Your task to perform on an android device: open device folders in google photos Image 0: 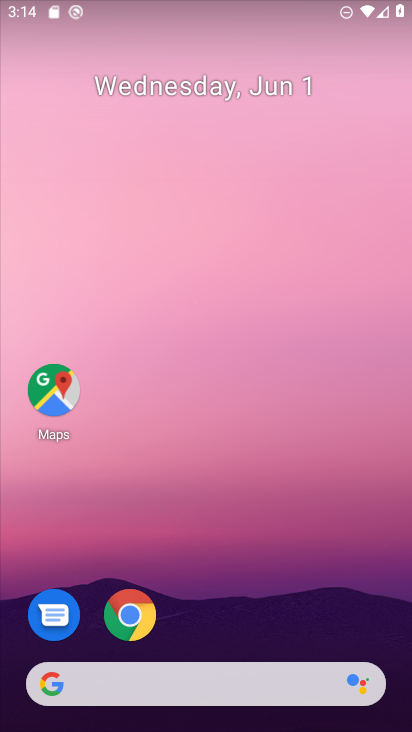
Step 0: press home button
Your task to perform on an android device: open device folders in google photos Image 1: 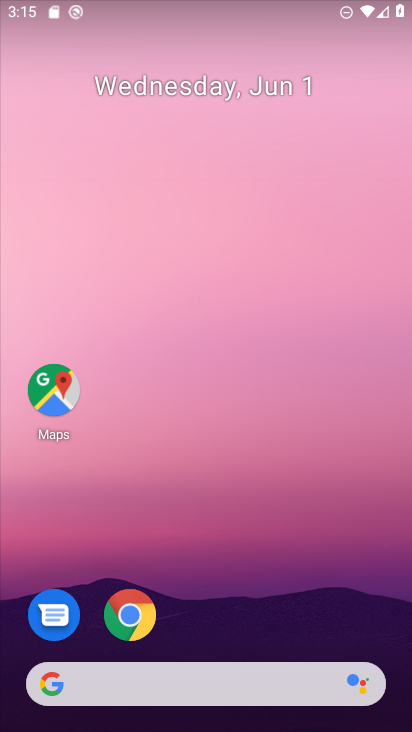
Step 1: drag from (211, 655) to (211, 128)
Your task to perform on an android device: open device folders in google photos Image 2: 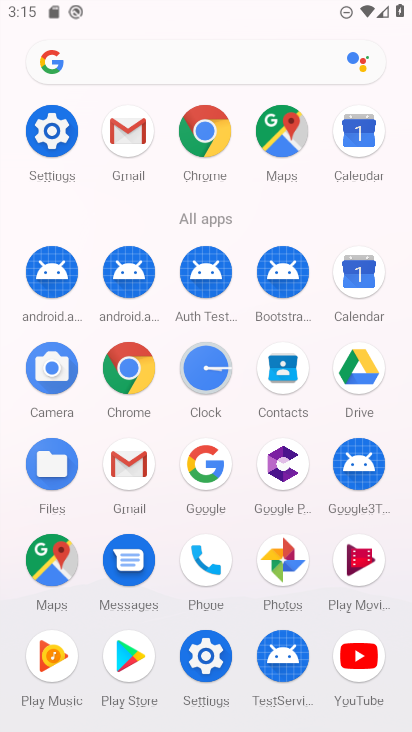
Step 2: click (281, 554)
Your task to perform on an android device: open device folders in google photos Image 3: 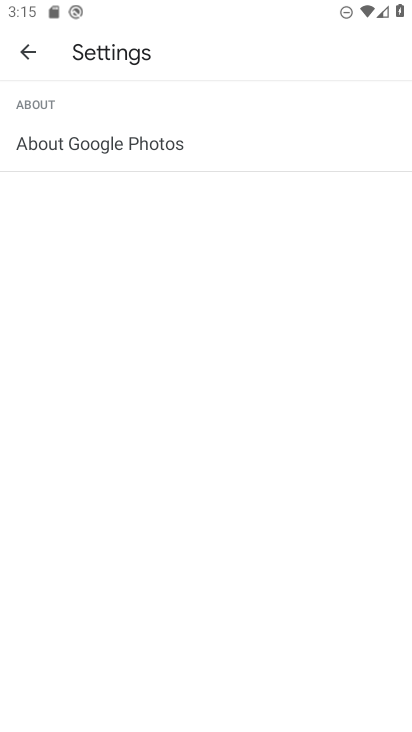
Step 3: click (27, 54)
Your task to perform on an android device: open device folders in google photos Image 4: 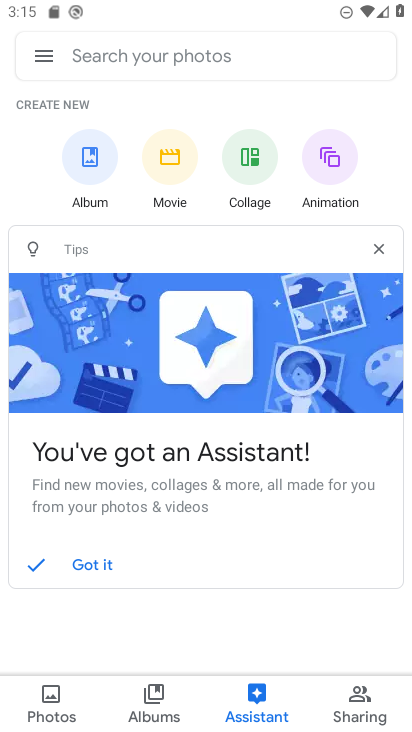
Step 4: click (49, 57)
Your task to perform on an android device: open device folders in google photos Image 5: 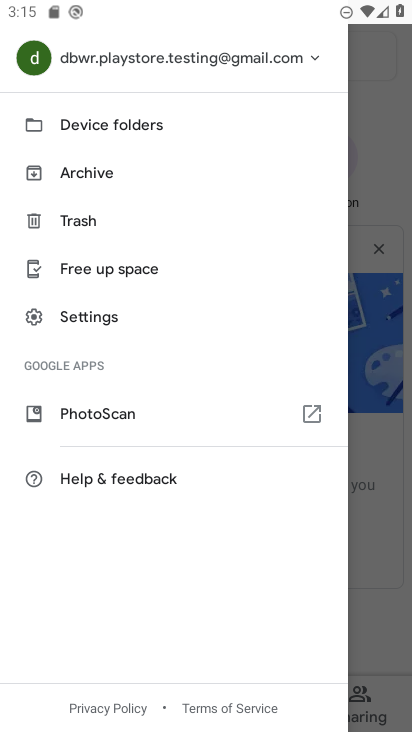
Step 5: click (376, 509)
Your task to perform on an android device: open device folders in google photos Image 6: 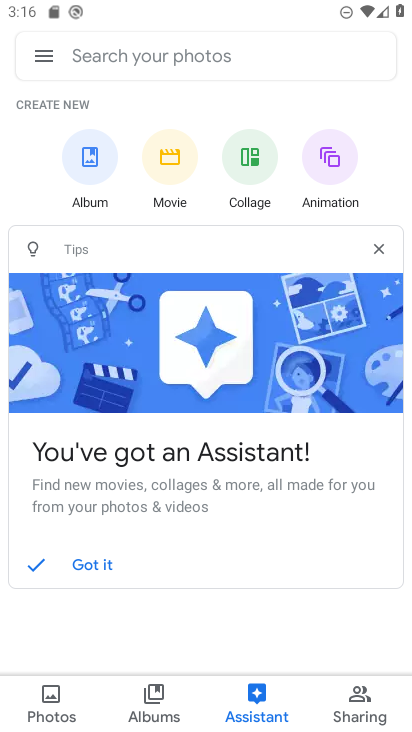
Step 6: click (37, 56)
Your task to perform on an android device: open device folders in google photos Image 7: 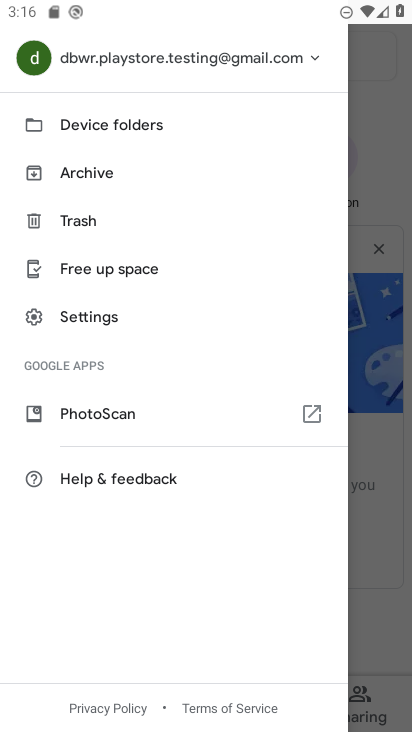
Step 7: click (100, 129)
Your task to perform on an android device: open device folders in google photos Image 8: 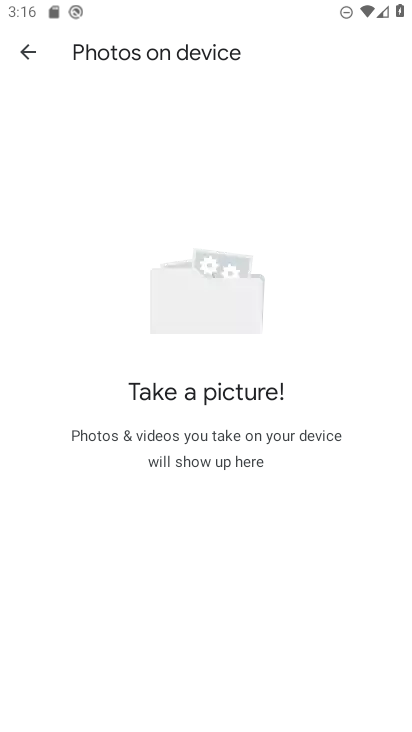
Step 8: task complete